Your task to perform on an android device: open app "Google Photos" Image 0: 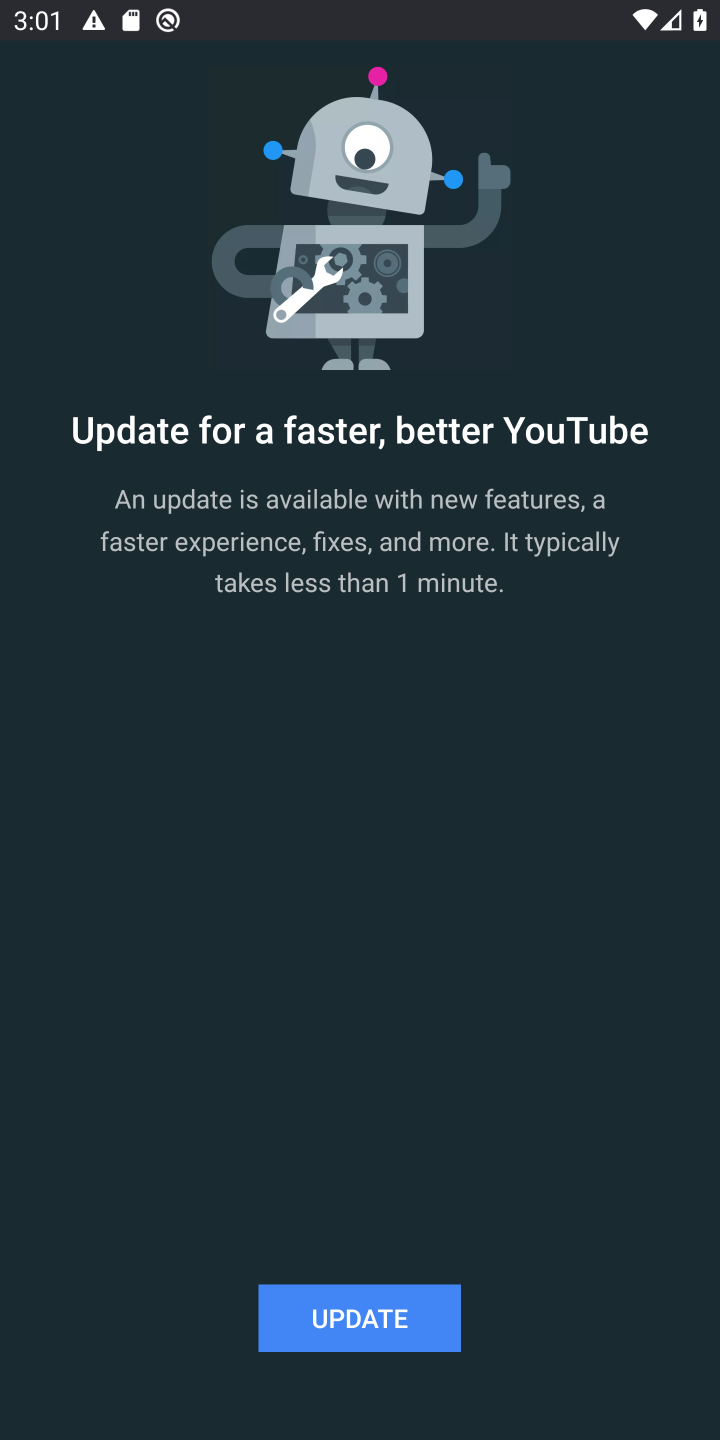
Step 0: press home button
Your task to perform on an android device: open app "Google Photos" Image 1: 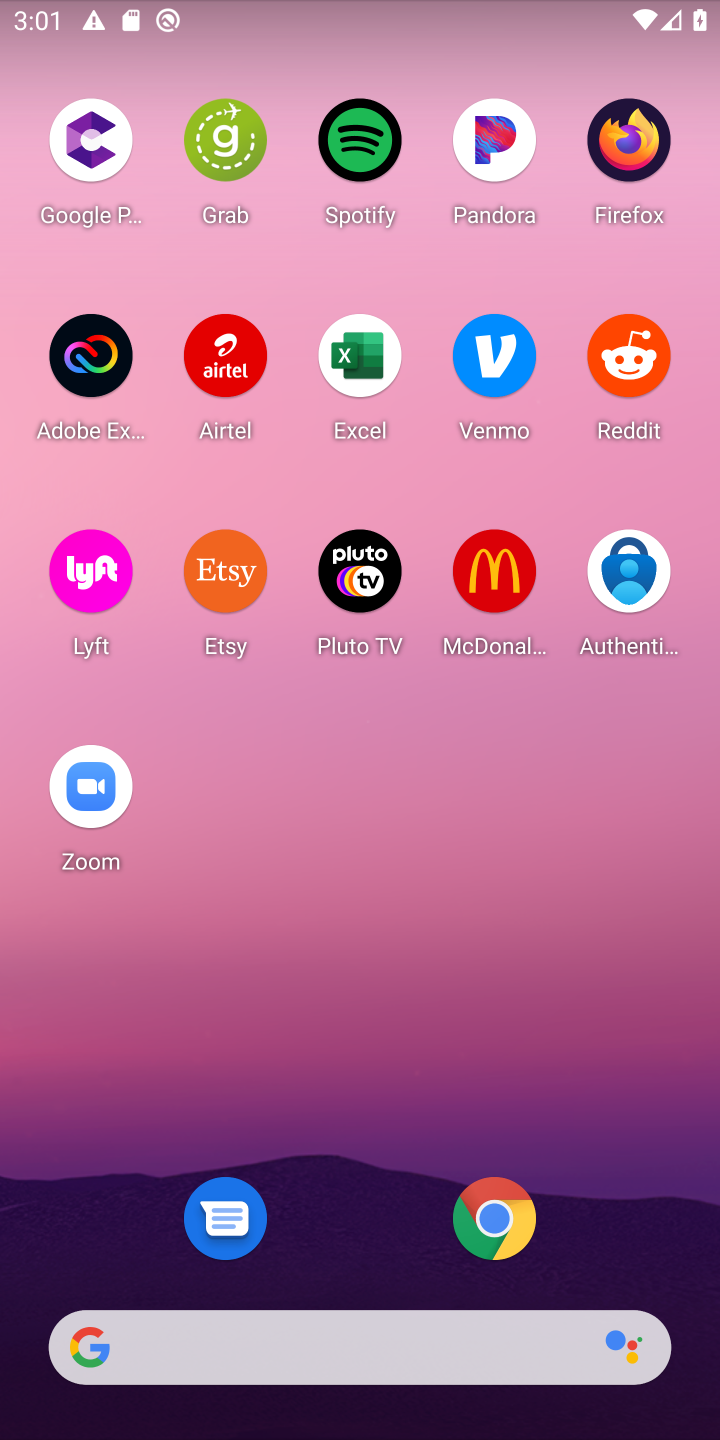
Step 1: drag from (379, 514) to (379, 100)
Your task to perform on an android device: open app "Google Photos" Image 2: 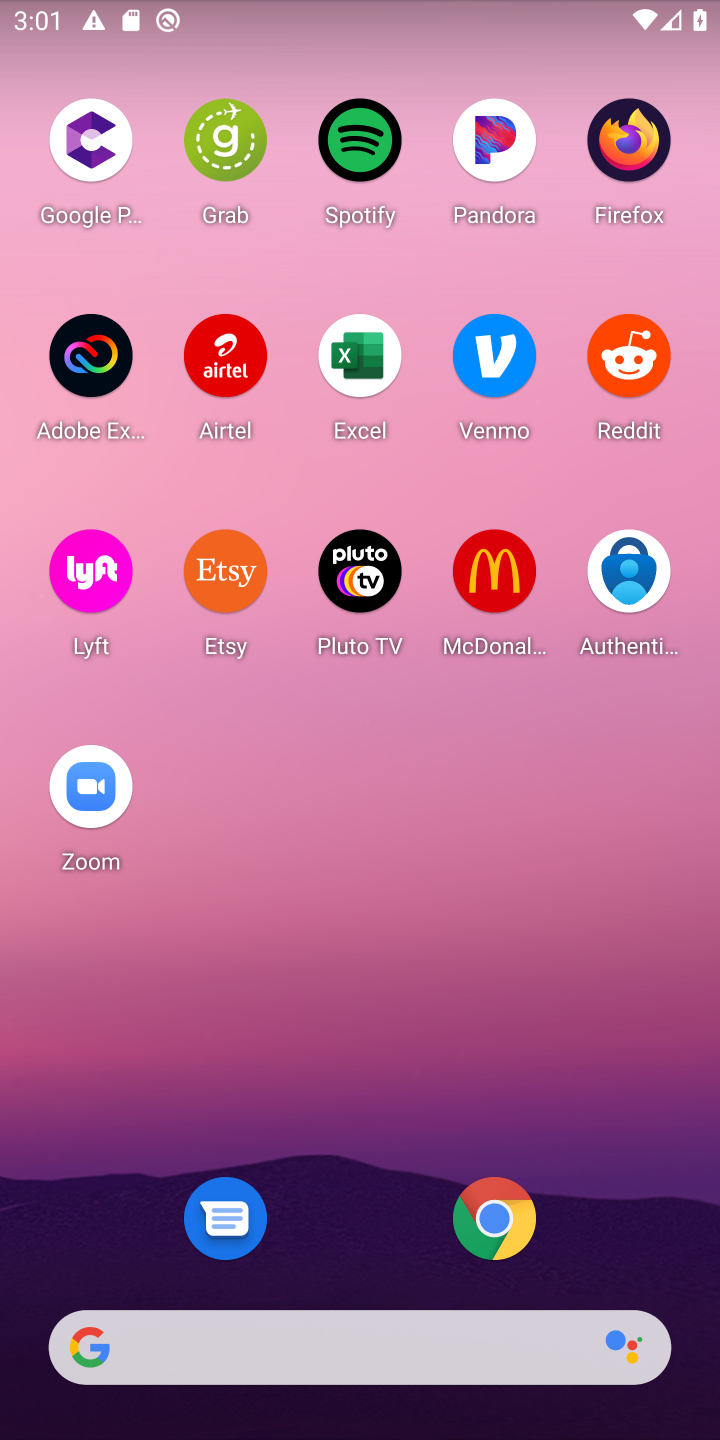
Step 2: drag from (371, 946) to (451, 331)
Your task to perform on an android device: open app "Google Photos" Image 3: 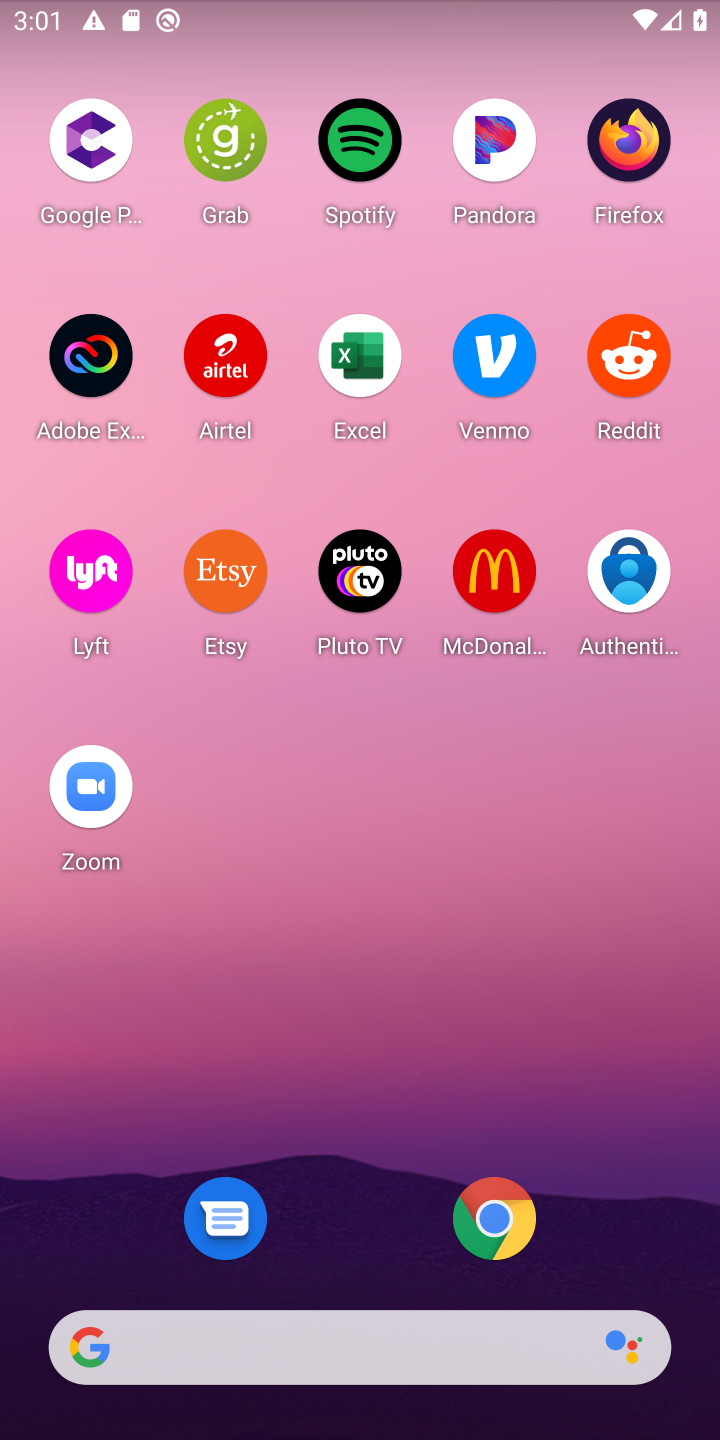
Step 3: drag from (423, 950) to (461, 293)
Your task to perform on an android device: open app "Google Photos" Image 4: 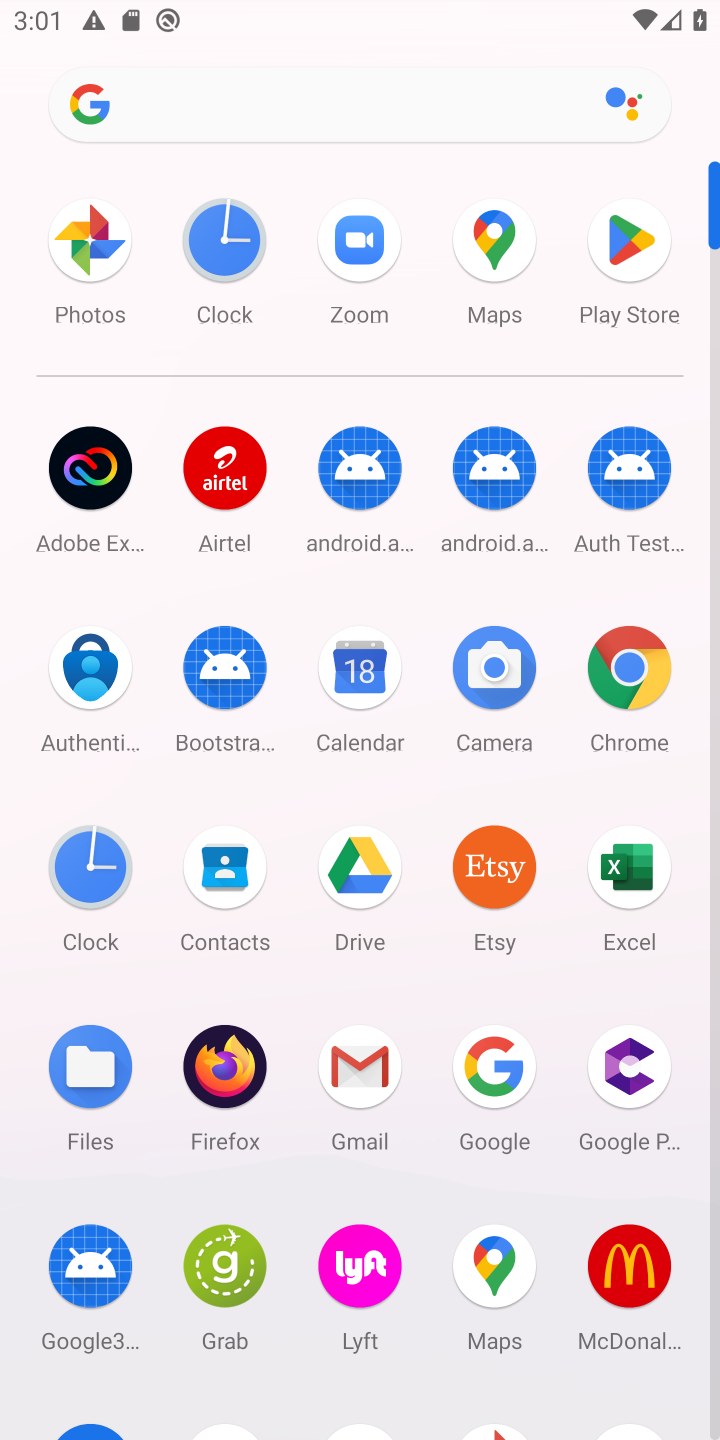
Step 4: click (607, 229)
Your task to perform on an android device: open app "Google Photos" Image 5: 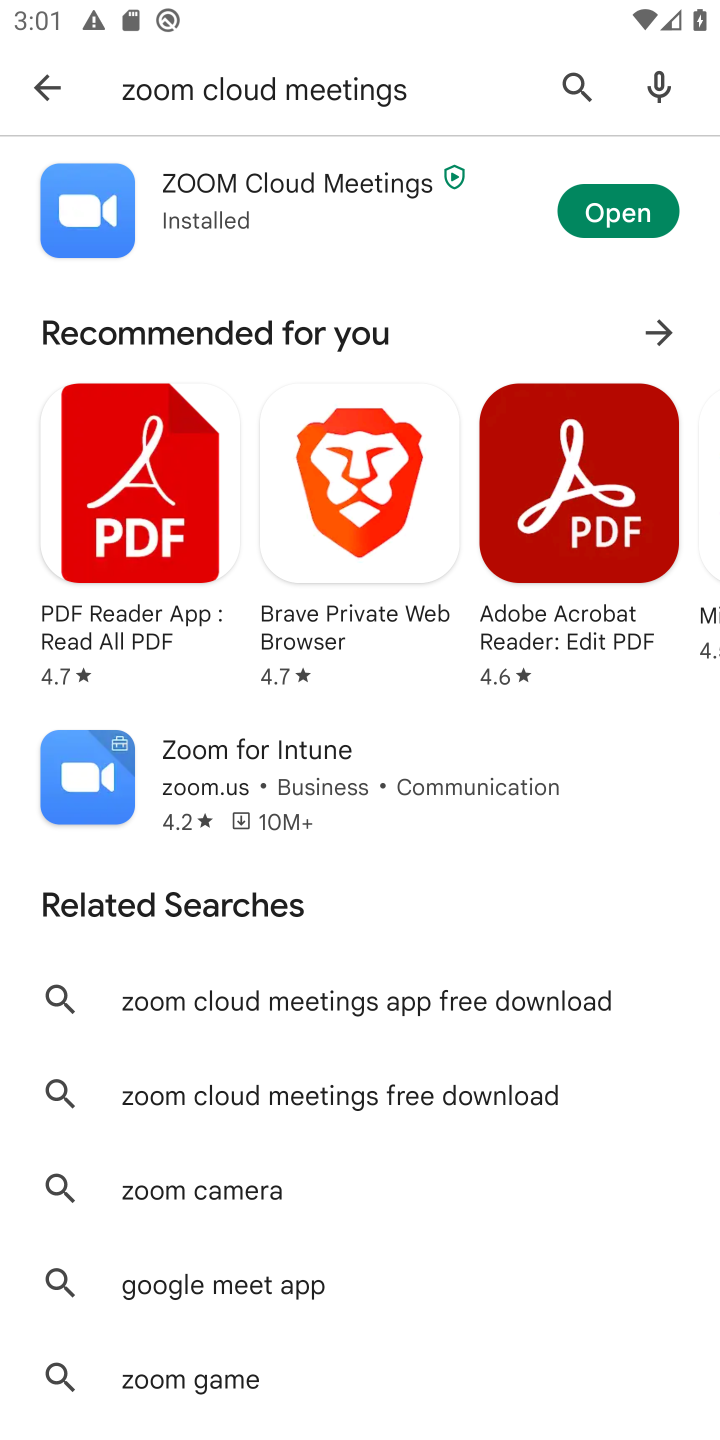
Step 5: click (574, 97)
Your task to perform on an android device: open app "Google Photos" Image 6: 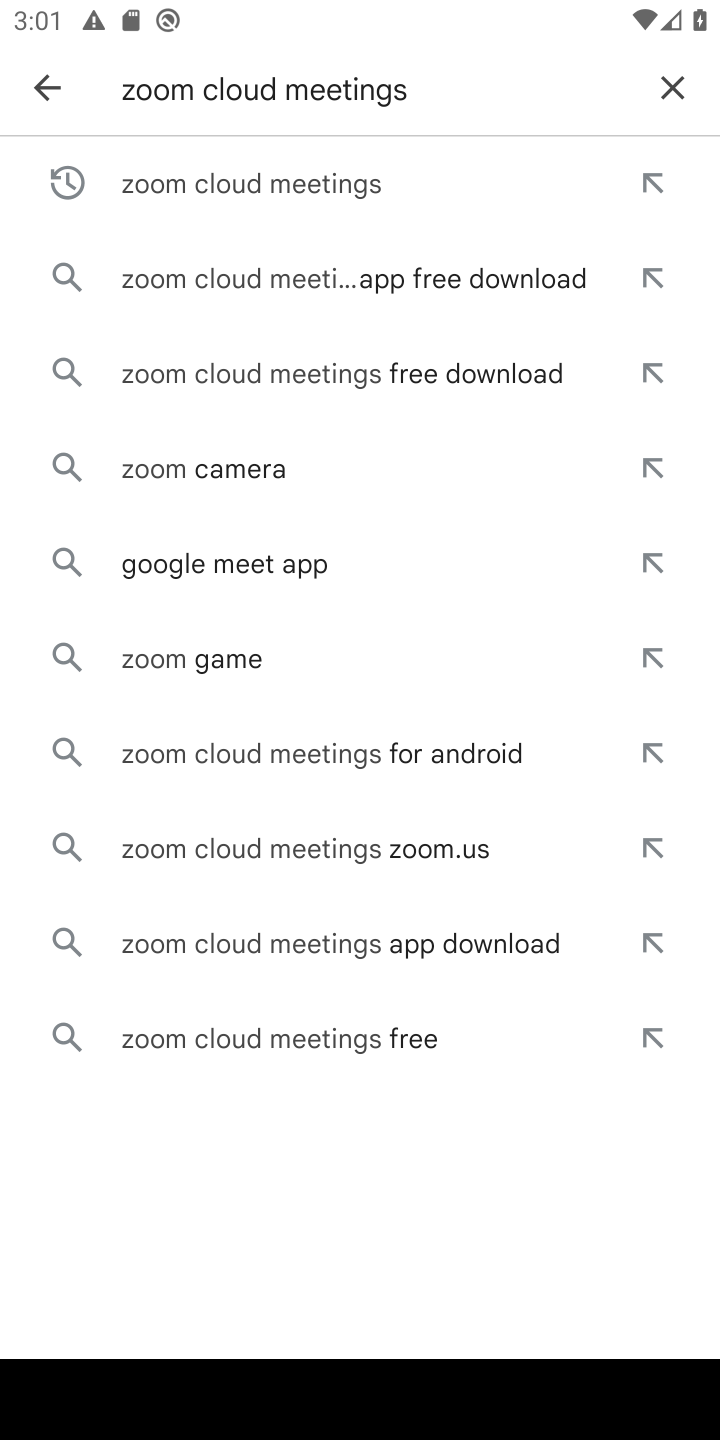
Step 6: click (685, 69)
Your task to perform on an android device: open app "Google Photos" Image 7: 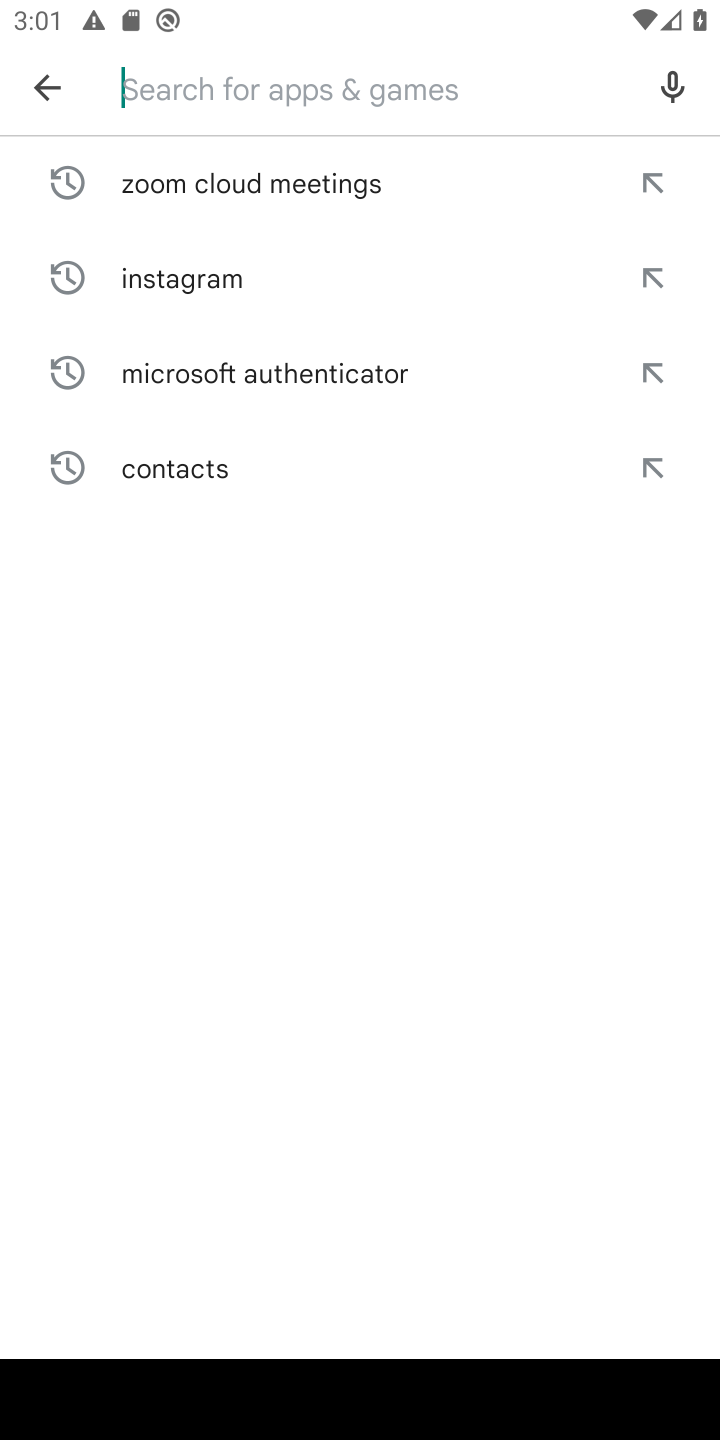
Step 7: type "Google Photos"
Your task to perform on an android device: open app "Google Photos" Image 8: 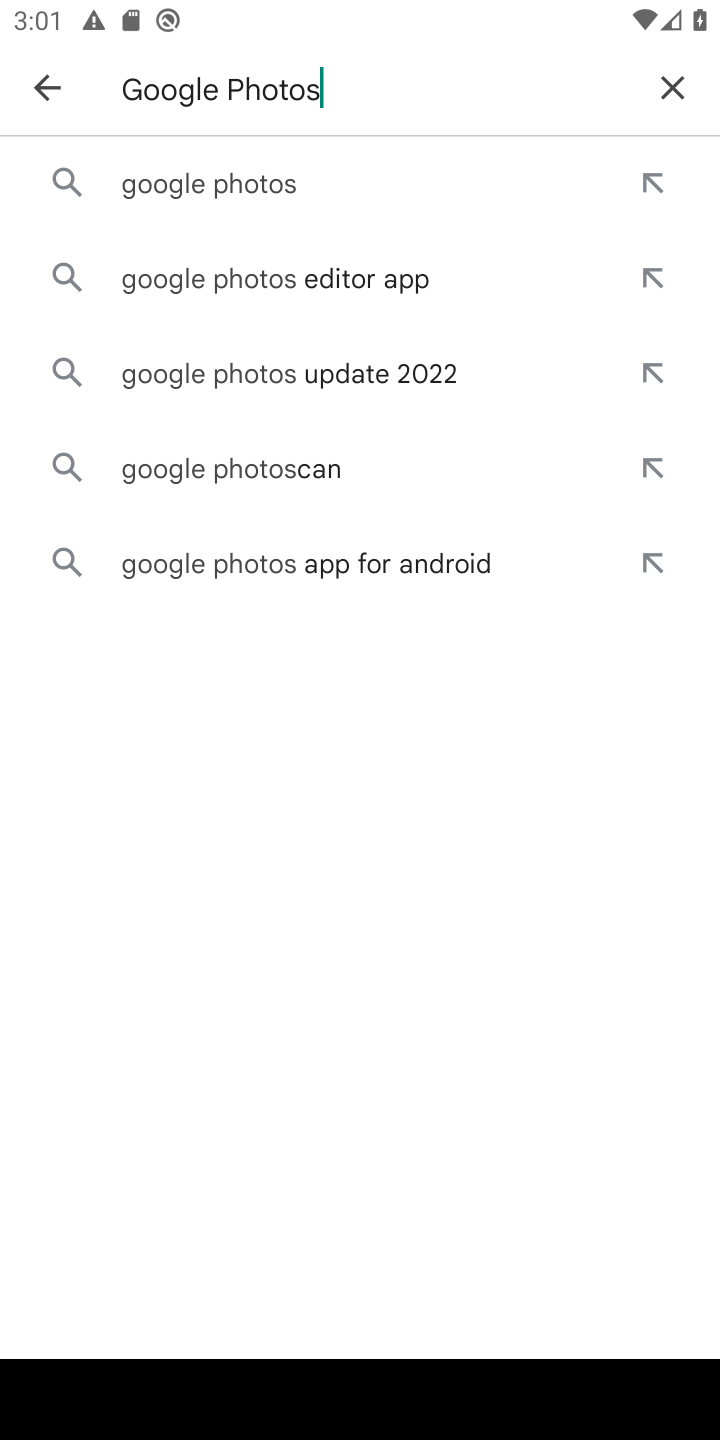
Step 8: click (348, 180)
Your task to perform on an android device: open app "Google Photos" Image 9: 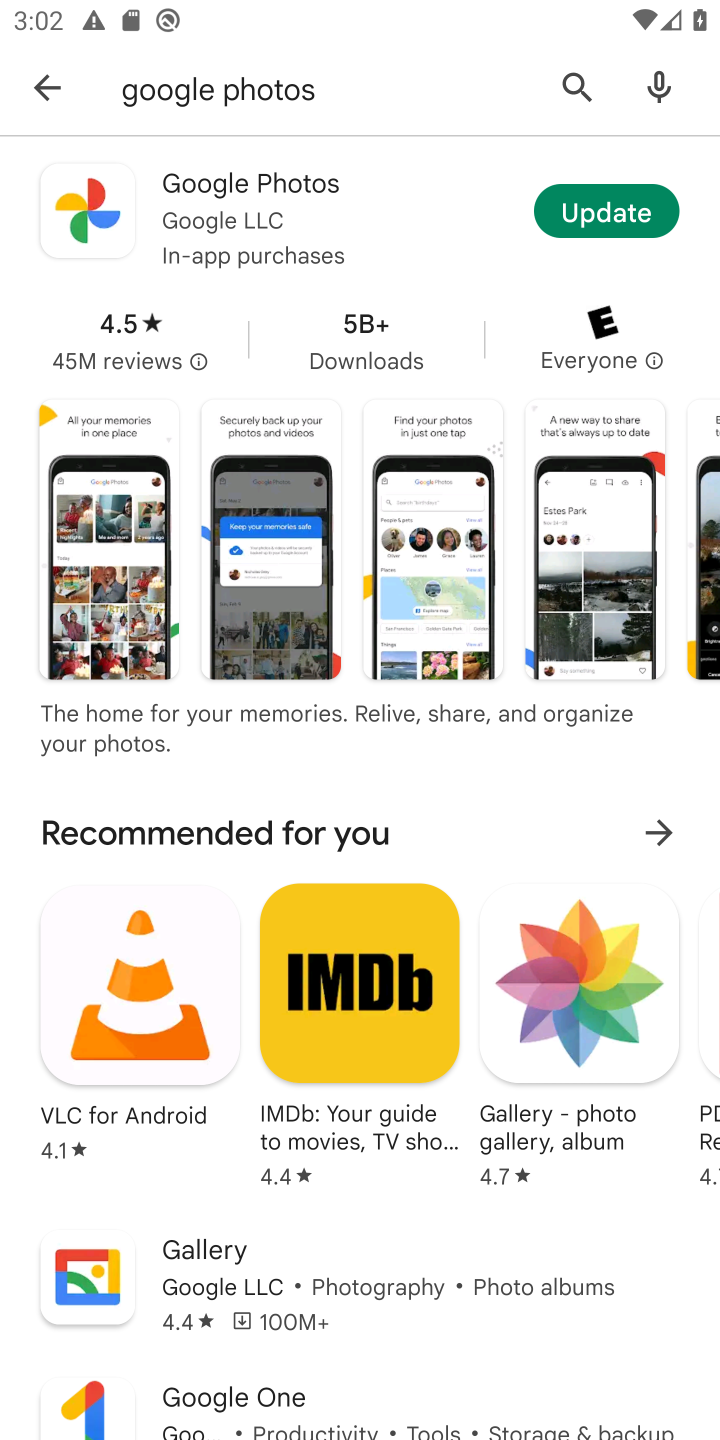
Step 9: click (356, 198)
Your task to perform on an android device: open app "Google Photos" Image 10: 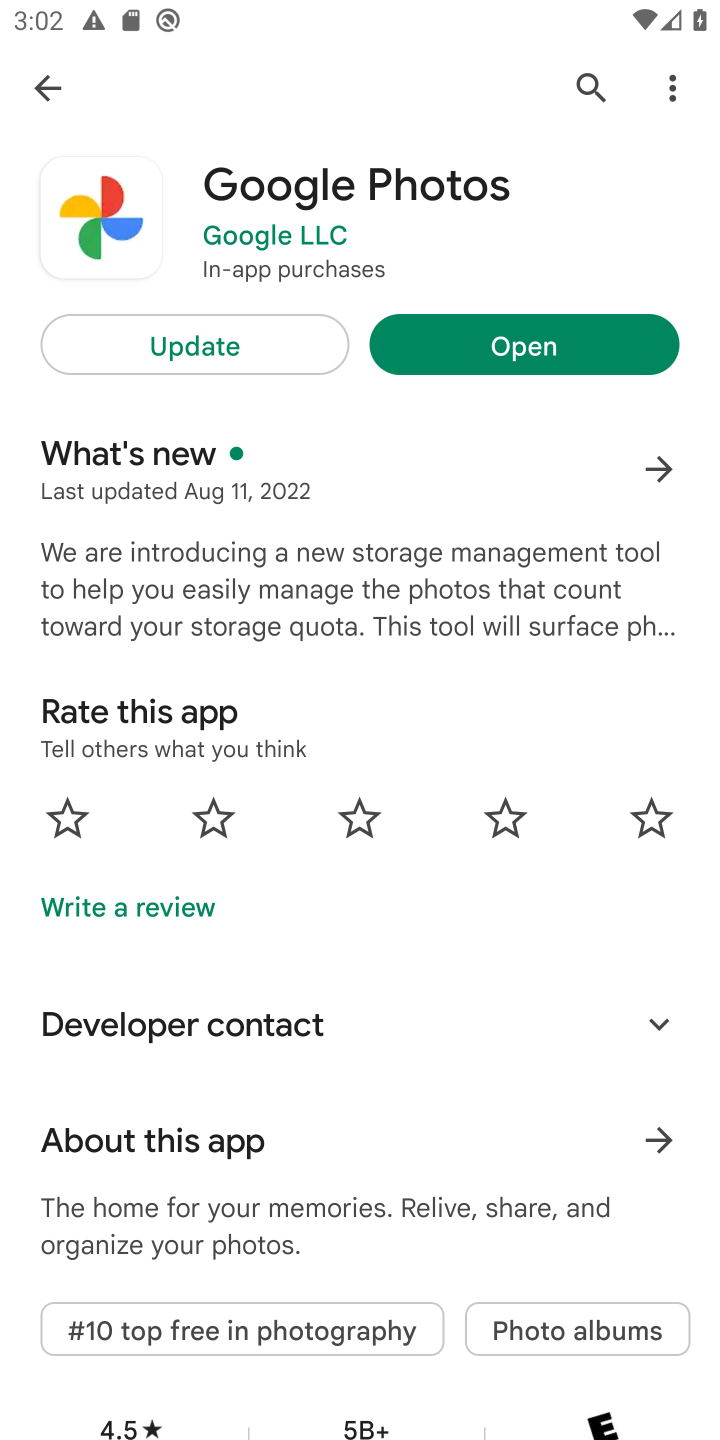
Step 10: click (566, 355)
Your task to perform on an android device: open app "Google Photos" Image 11: 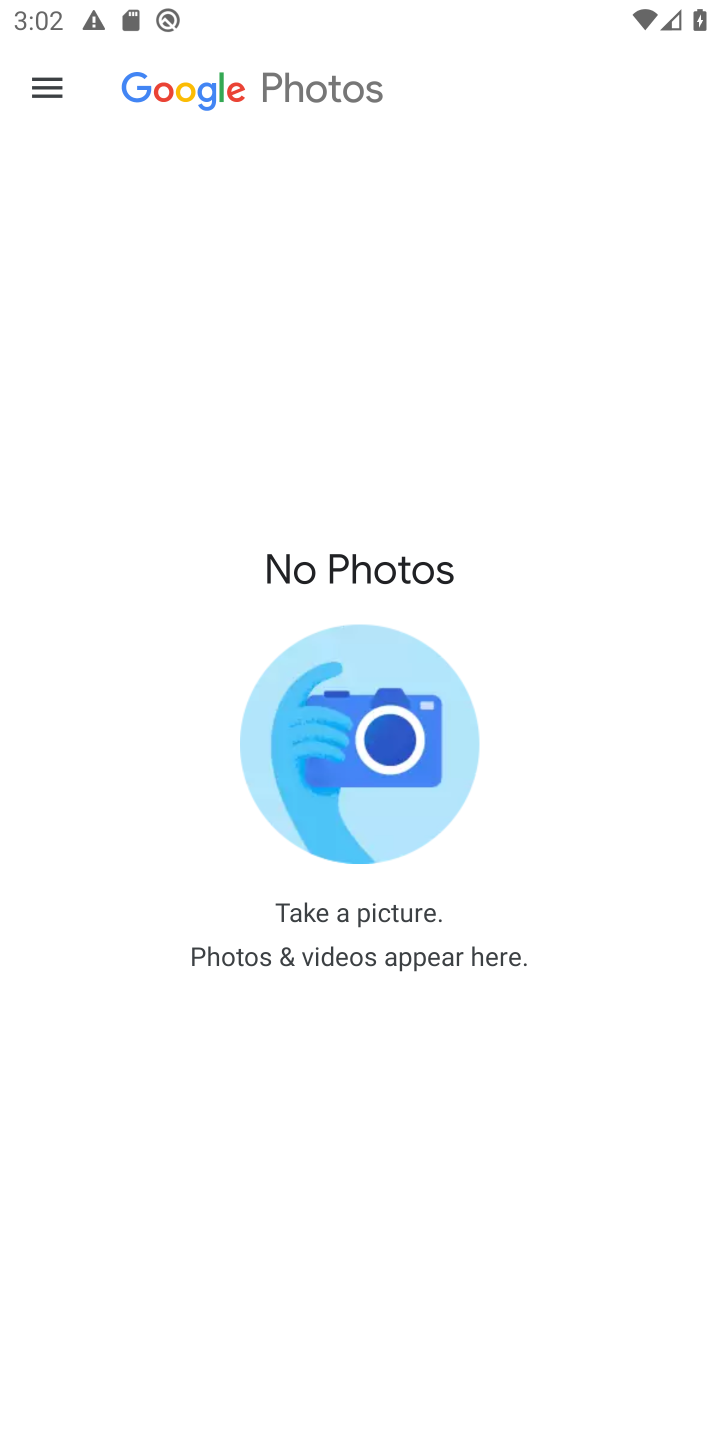
Step 11: task complete